Your task to perform on an android device: Do I have any events today? Image 0: 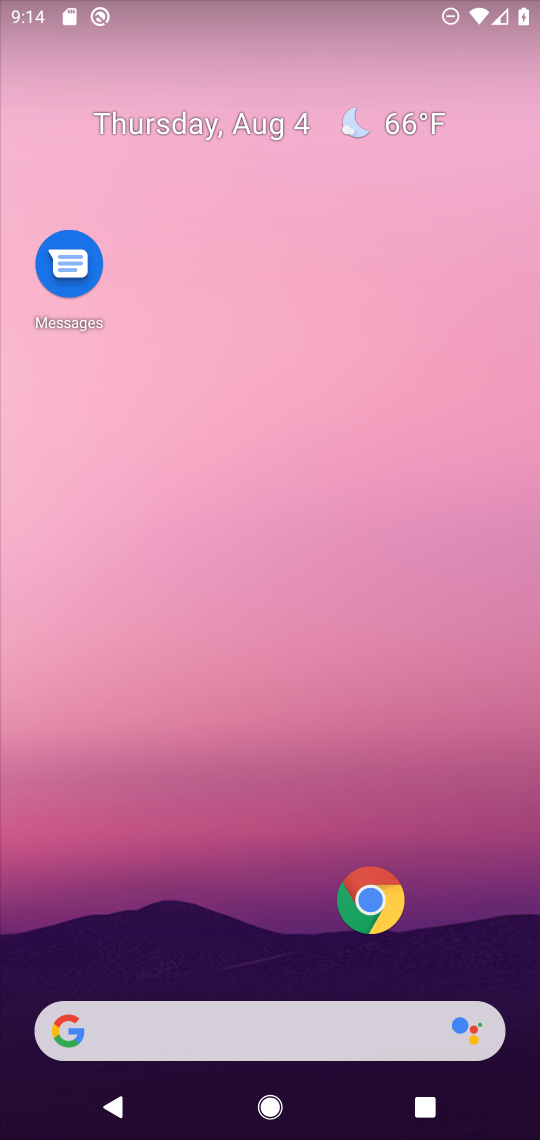
Step 0: press home button
Your task to perform on an android device: Do I have any events today? Image 1: 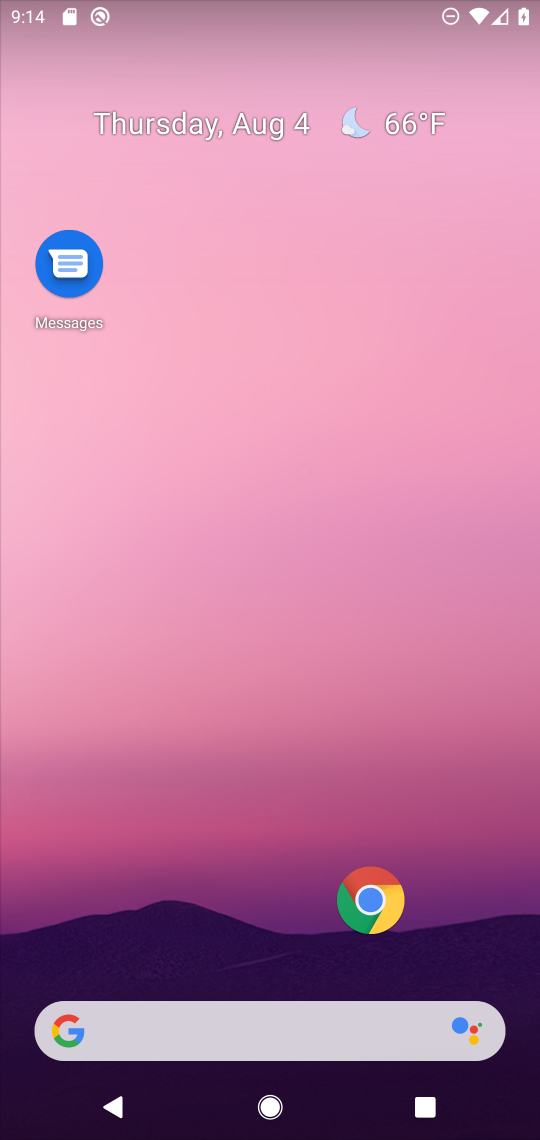
Step 1: drag from (346, 1010) to (109, 129)
Your task to perform on an android device: Do I have any events today? Image 2: 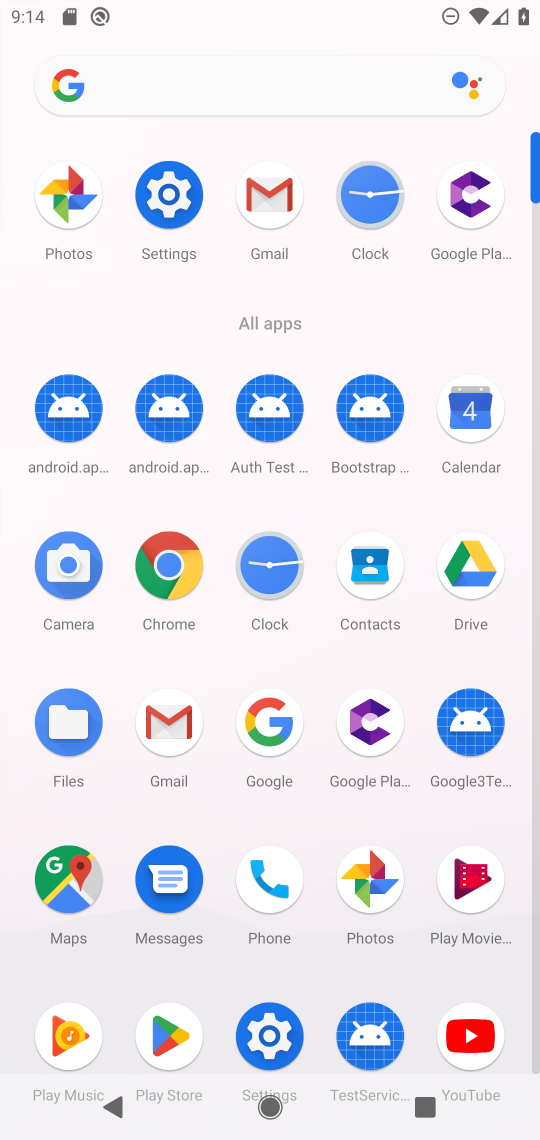
Step 2: click (461, 401)
Your task to perform on an android device: Do I have any events today? Image 3: 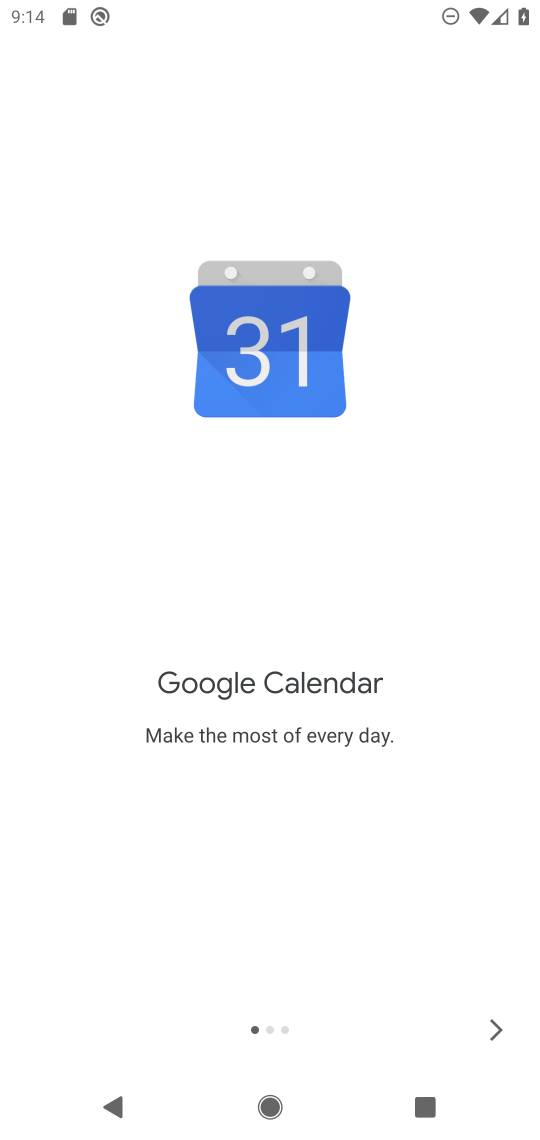
Step 3: click (496, 1033)
Your task to perform on an android device: Do I have any events today? Image 4: 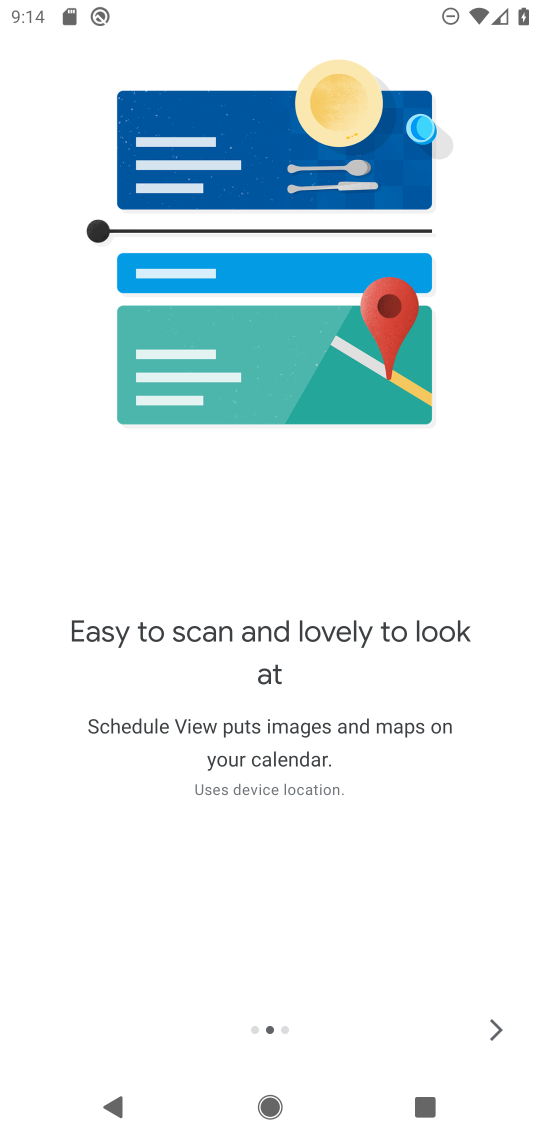
Step 4: click (496, 1033)
Your task to perform on an android device: Do I have any events today? Image 5: 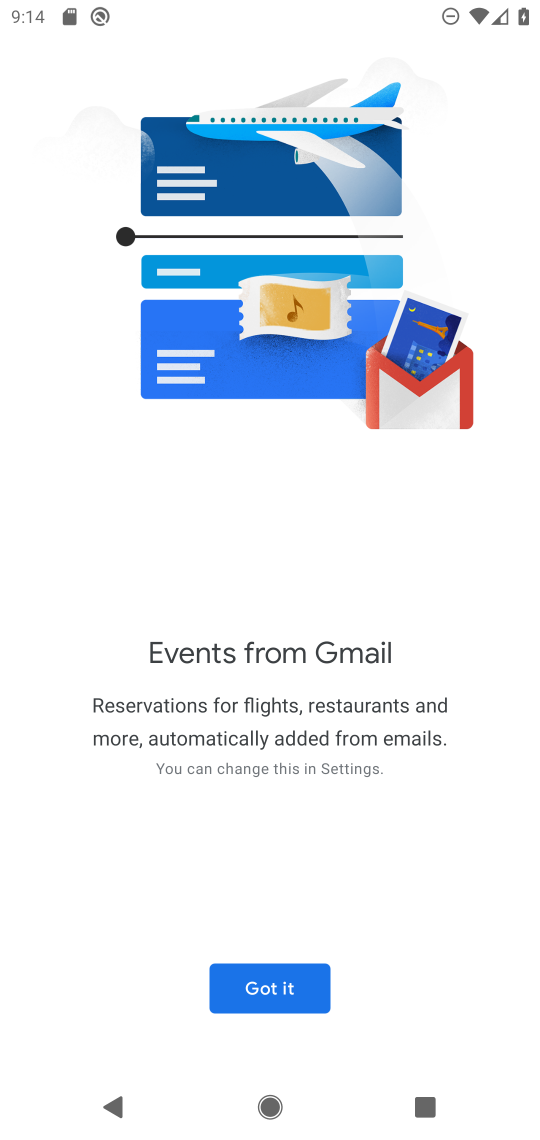
Step 5: click (283, 979)
Your task to perform on an android device: Do I have any events today? Image 6: 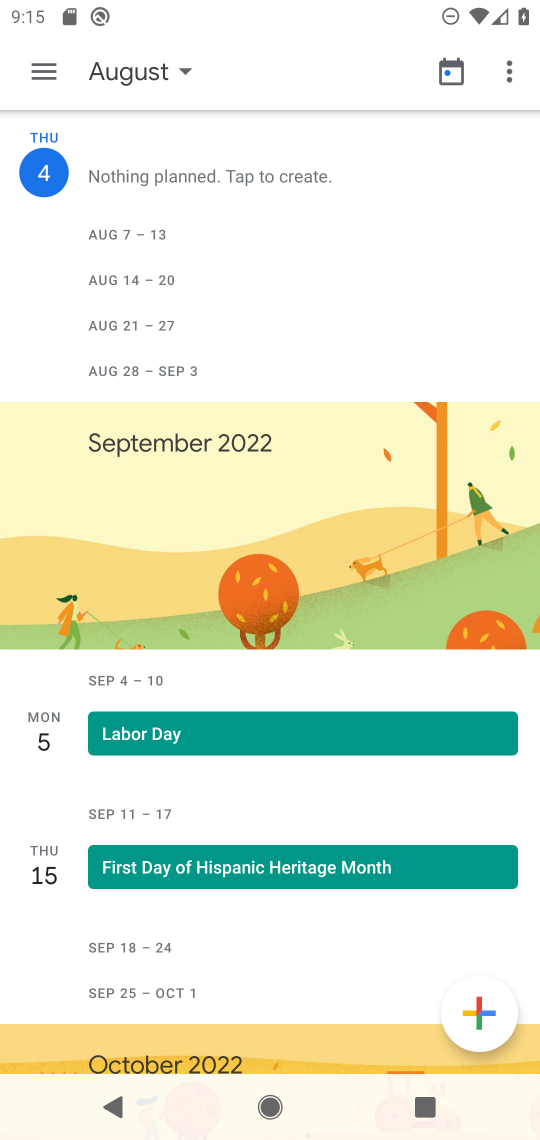
Step 6: click (188, 70)
Your task to perform on an android device: Do I have any events today? Image 7: 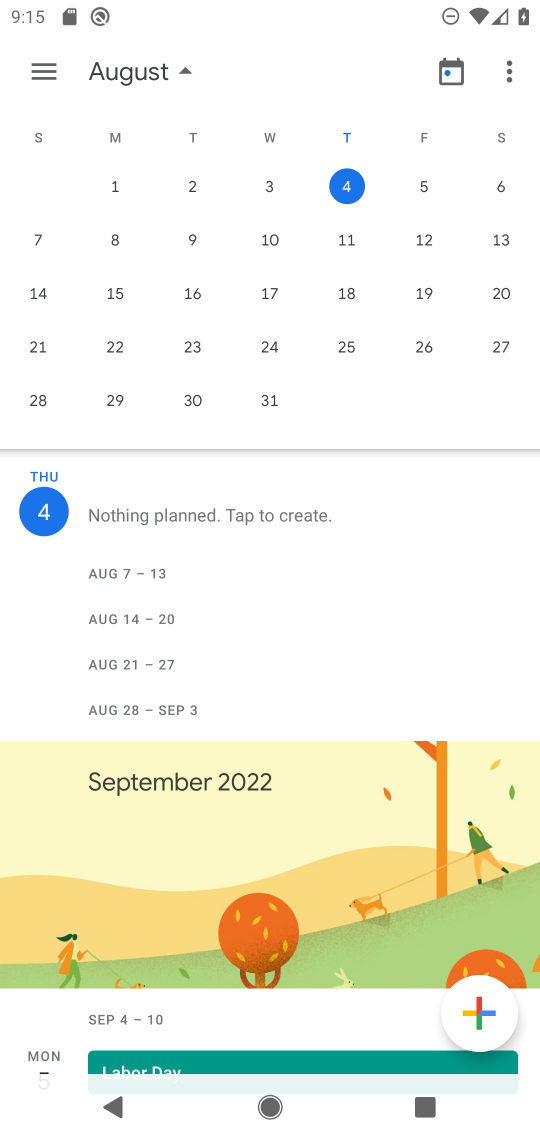
Step 7: task complete